Your task to perform on an android device: turn on javascript in the chrome app Image 0: 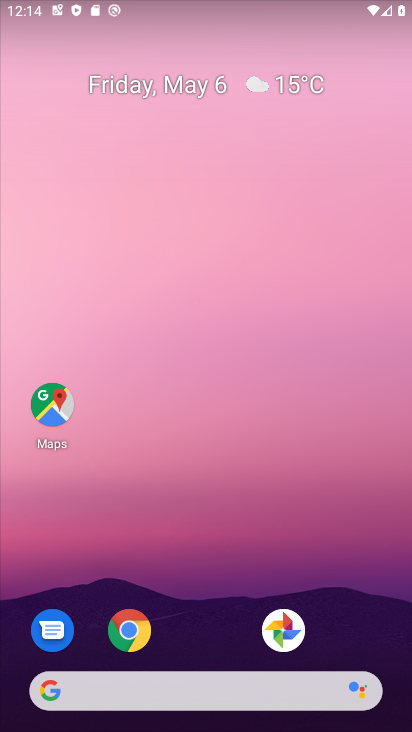
Step 0: click (120, 623)
Your task to perform on an android device: turn on javascript in the chrome app Image 1: 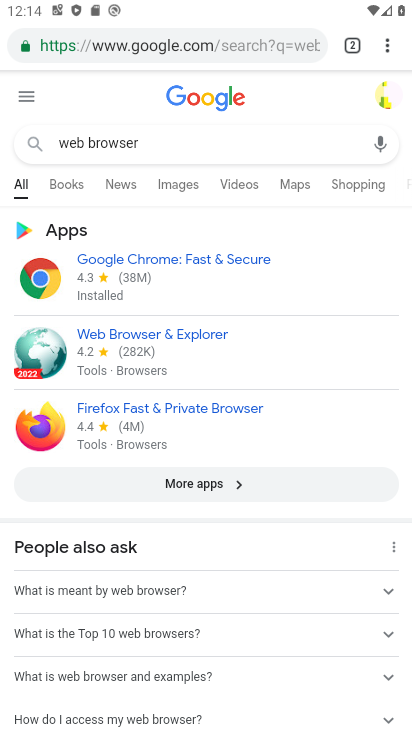
Step 1: drag from (377, 51) to (241, 507)
Your task to perform on an android device: turn on javascript in the chrome app Image 2: 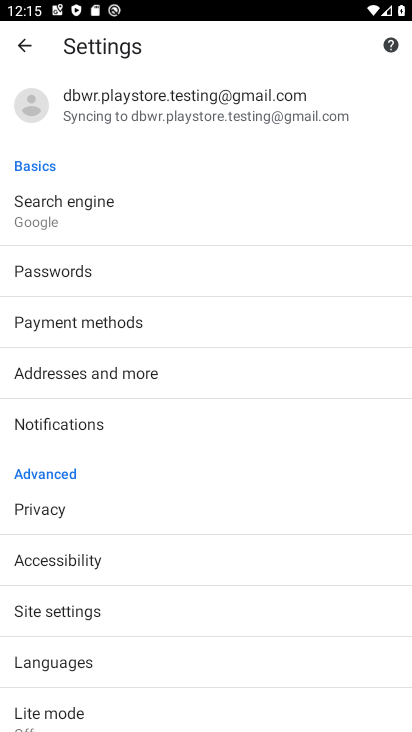
Step 2: click (114, 603)
Your task to perform on an android device: turn on javascript in the chrome app Image 3: 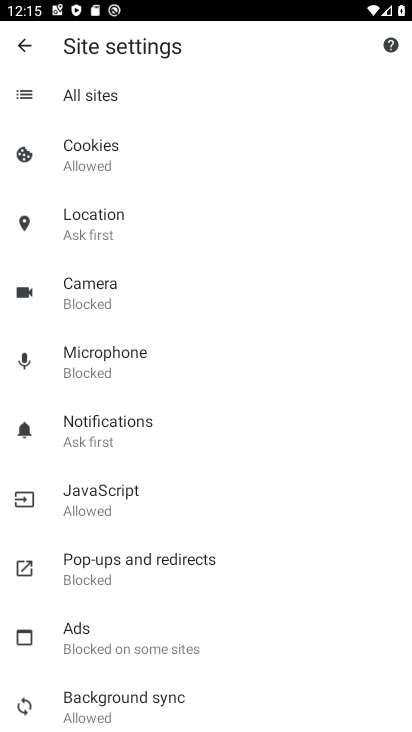
Step 3: click (131, 501)
Your task to perform on an android device: turn on javascript in the chrome app Image 4: 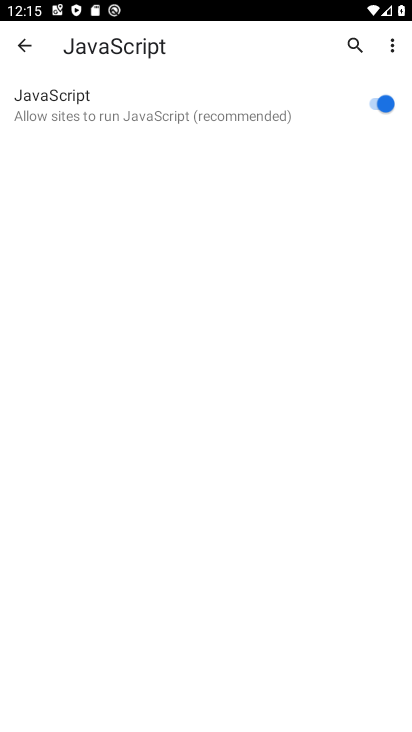
Step 4: task complete